Your task to perform on an android device: turn smart compose on in the gmail app Image 0: 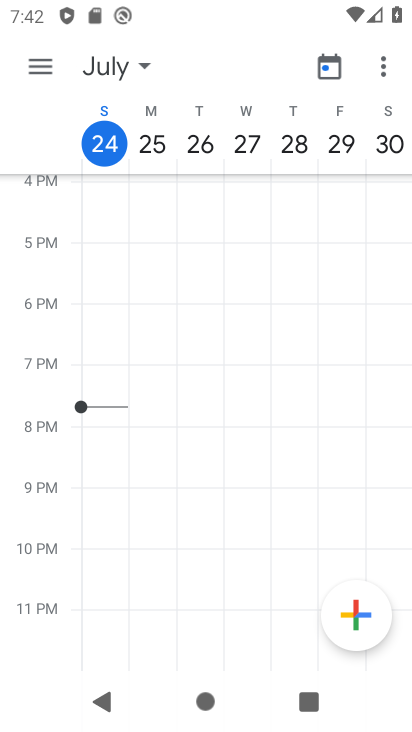
Step 0: press home button
Your task to perform on an android device: turn smart compose on in the gmail app Image 1: 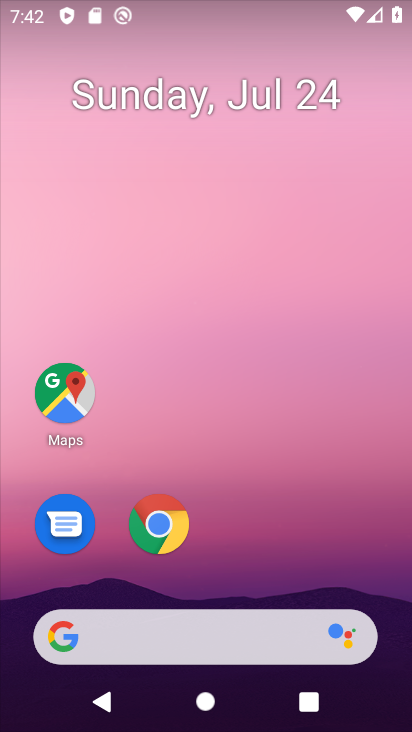
Step 1: drag from (260, 554) to (290, 29)
Your task to perform on an android device: turn smart compose on in the gmail app Image 2: 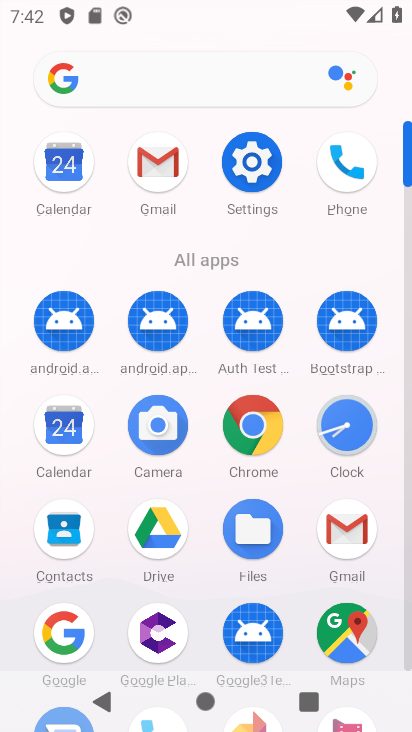
Step 2: click (168, 170)
Your task to perform on an android device: turn smart compose on in the gmail app Image 3: 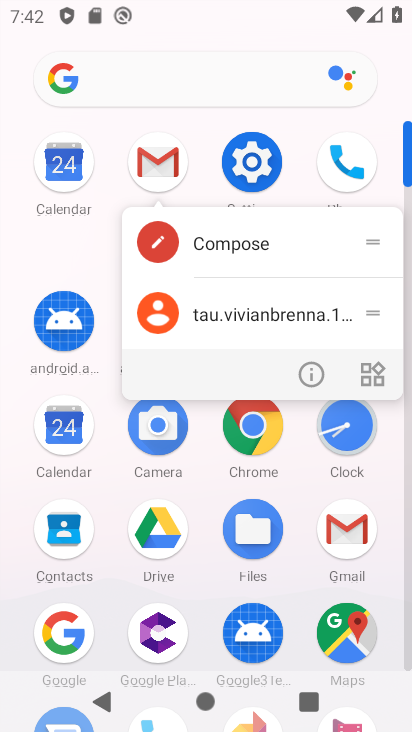
Step 3: click (168, 170)
Your task to perform on an android device: turn smart compose on in the gmail app Image 4: 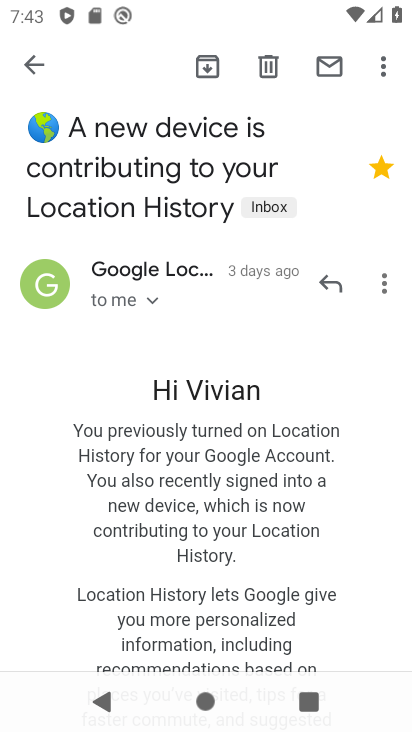
Step 4: click (29, 61)
Your task to perform on an android device: turn smart compose on in the gmail app Image 5: 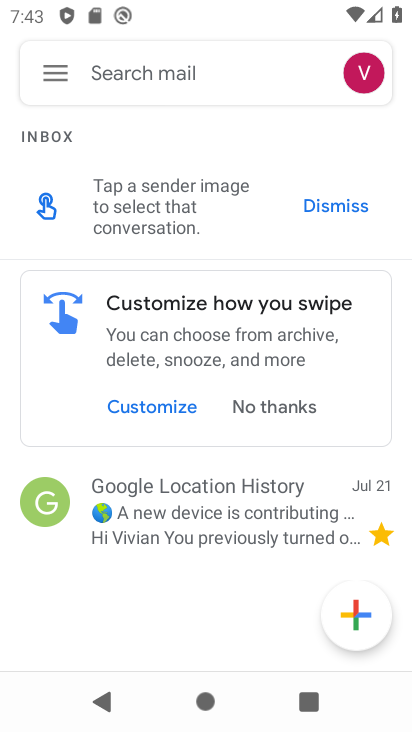
Step 5: click (65, 69)
Your task to perform on an android device: turn smart compose on in the gmail app Image 6: 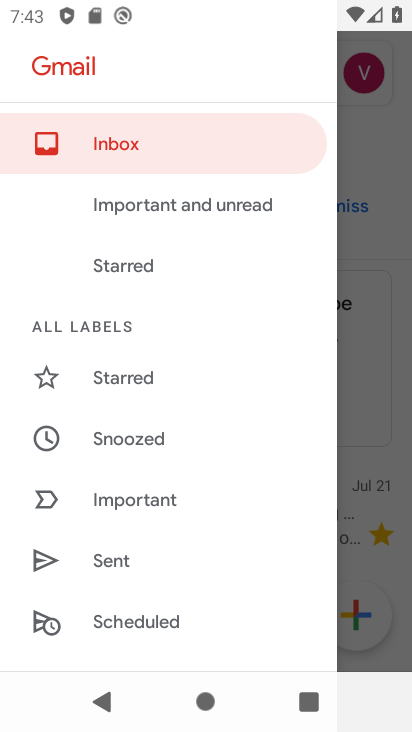
Step 6: drag from (163, 573) to (236, 0)
Your task to perform on an android device: turn smart compose on in the gmail app Image 7: 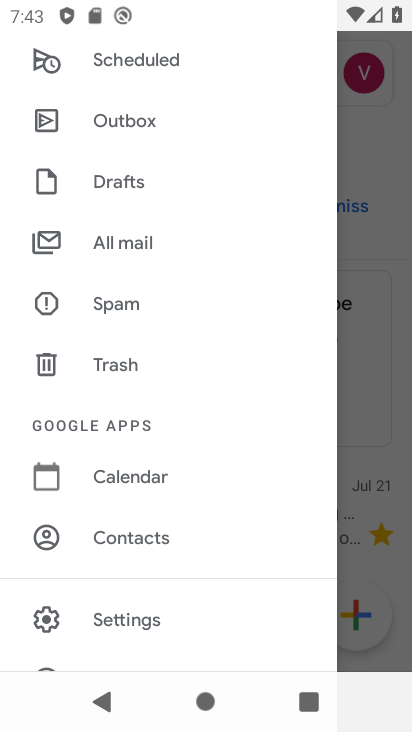
Step 7: click (149, 626)
Your task to perform on an android device: turn smart compose on in the gmail app Image 8: 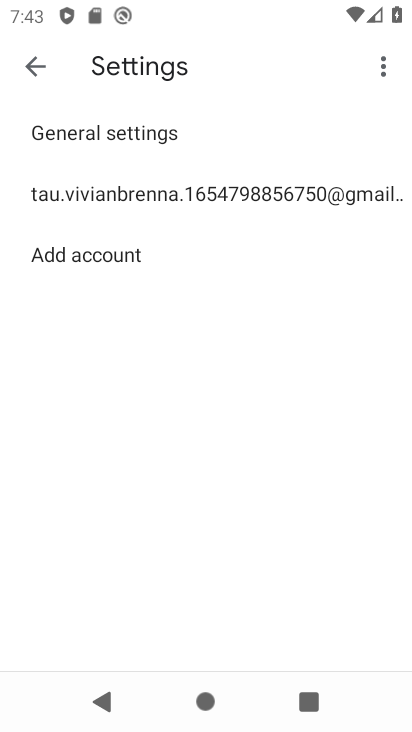
Step 8: click (236, 197)
Your task to perform on an android device: turn smart compose on in the gmail app Image 9: 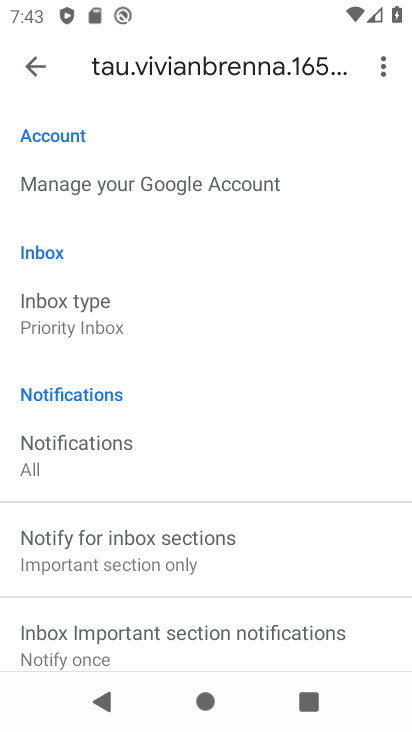
Step 9: task complete